Your task to perform on an android device: Search for vegetarian restaurants on Maps Image 0: 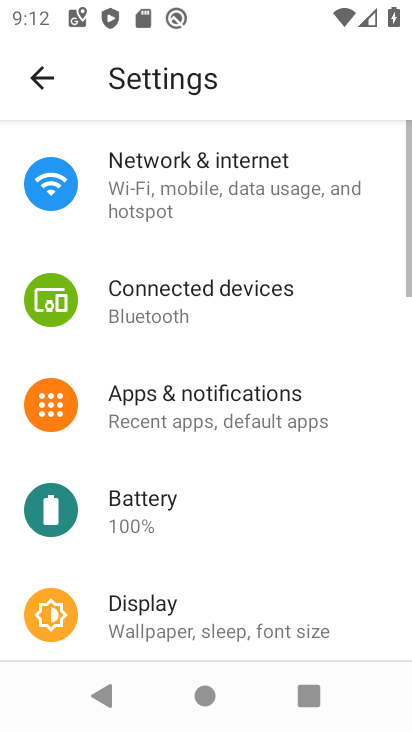
Step 0: press home button
Your task to perform on an android device: Search for vegetarian restaurants on Maps Image 1: 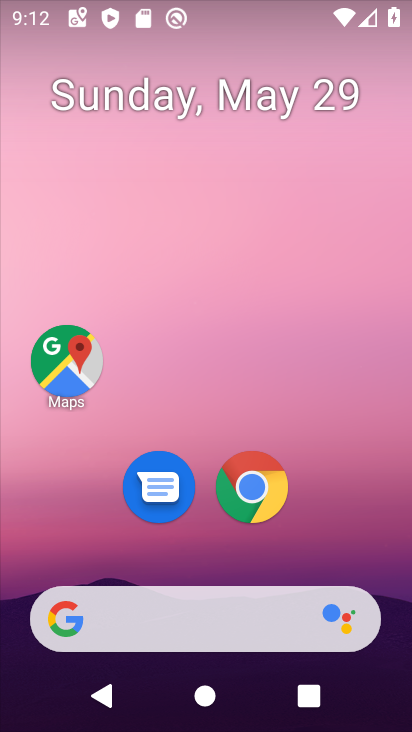
Step 1: click (53, 363)
Your task to perform on an android device: Search for vegetarian restaurants on Maps Image 2: 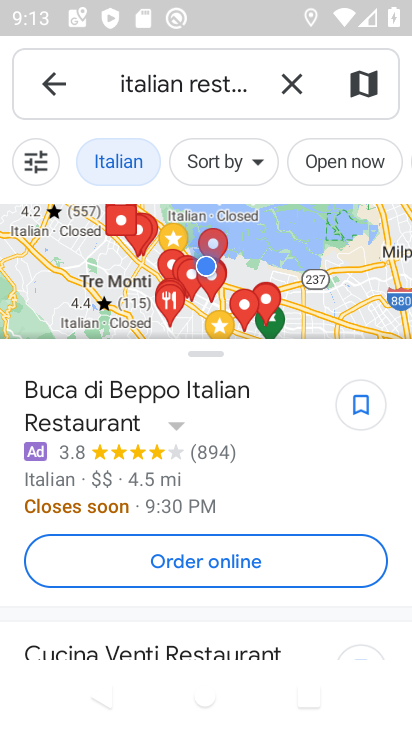
Step 2: click (296, 93)
Your task to perform on an android device: Search for vegetarian restaurants on Maps Image 3: 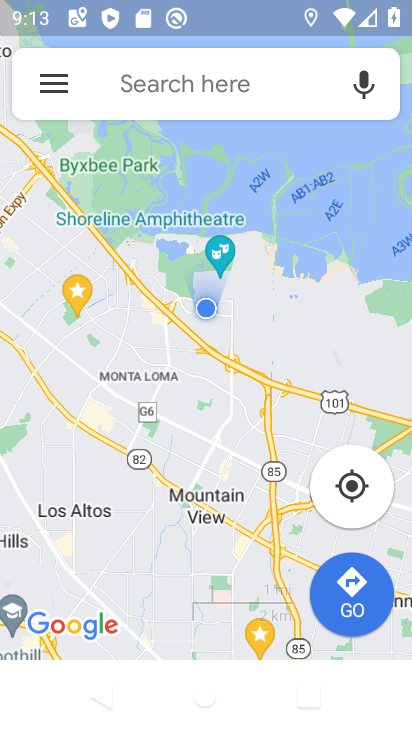
Step 3: click (203, 78)
Your task to perform on an android device: Search for vegetarian restaurants on Maps Image 4: 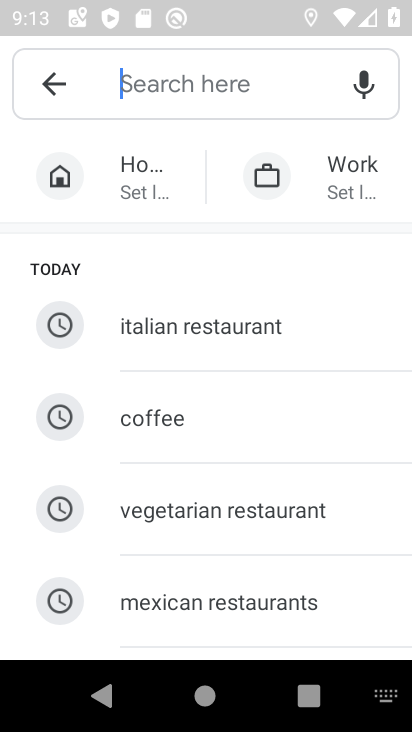
Step 4: click (279, 521)
Your task to perform on an android device: Search for vegetarian restaurants on Maps Image 5: 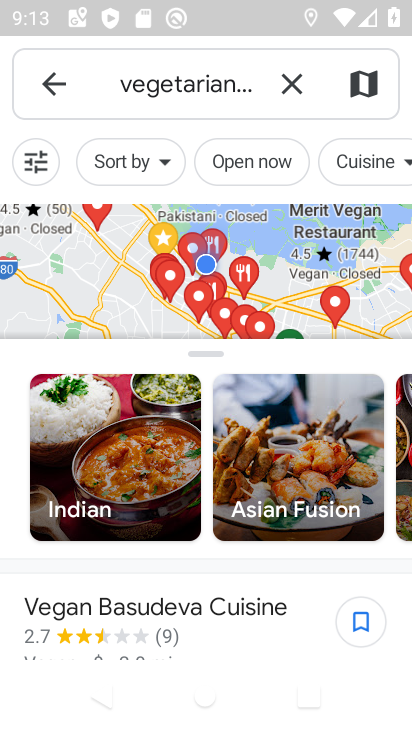
Step 5: task complete